Your task to perform on an android device: open app "Yahoo Mail" Image 0: 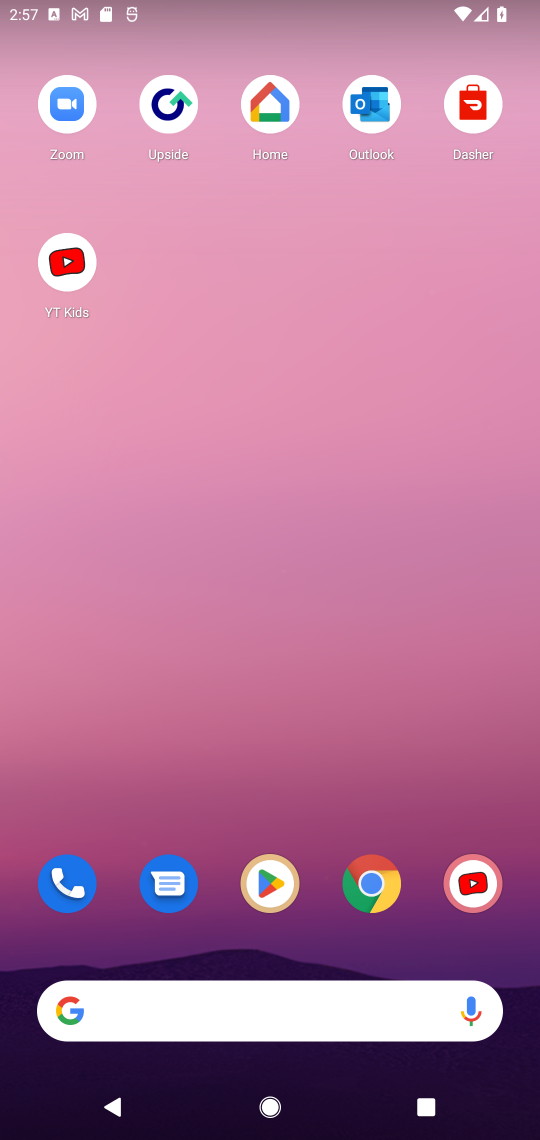
Step 0: drag from (256, 1014) to (235, 262)
Your task to perform on an android device: open app "Yahoo Mail" Image 1: 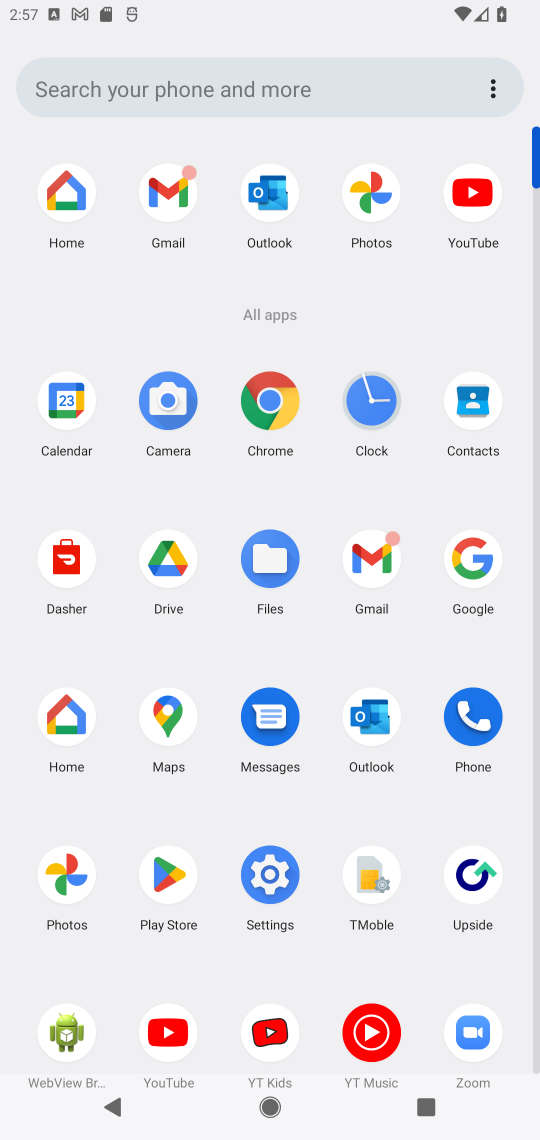
Step 1: click (153, 884)
Your task to perform on an android device: open app "Yahoo Mail" Image 2: 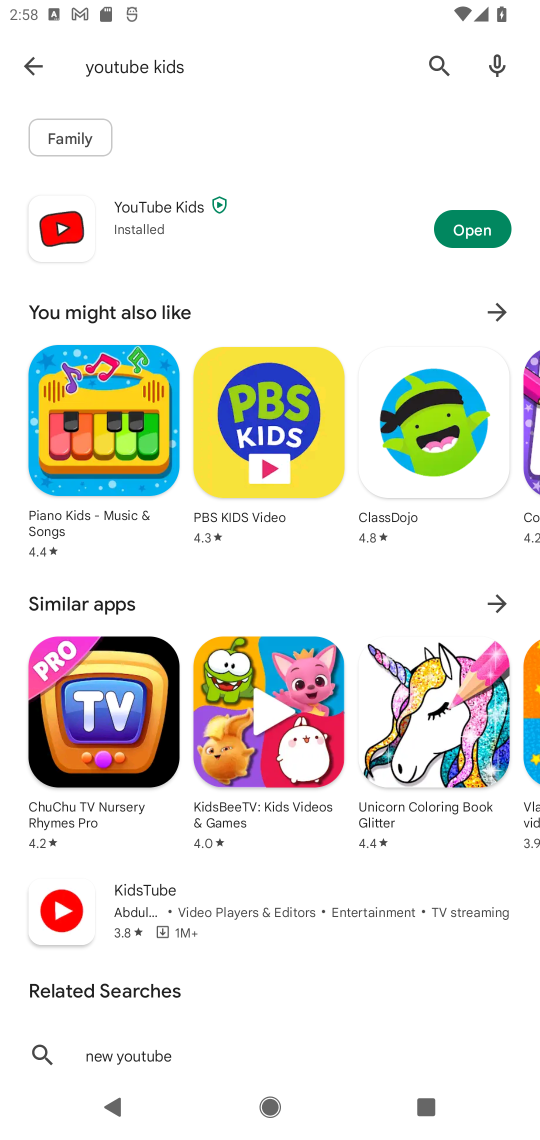
Step 2: click (447, 63)
Your task to perform on an android device: open app "Yahoo Mail" Image 3: 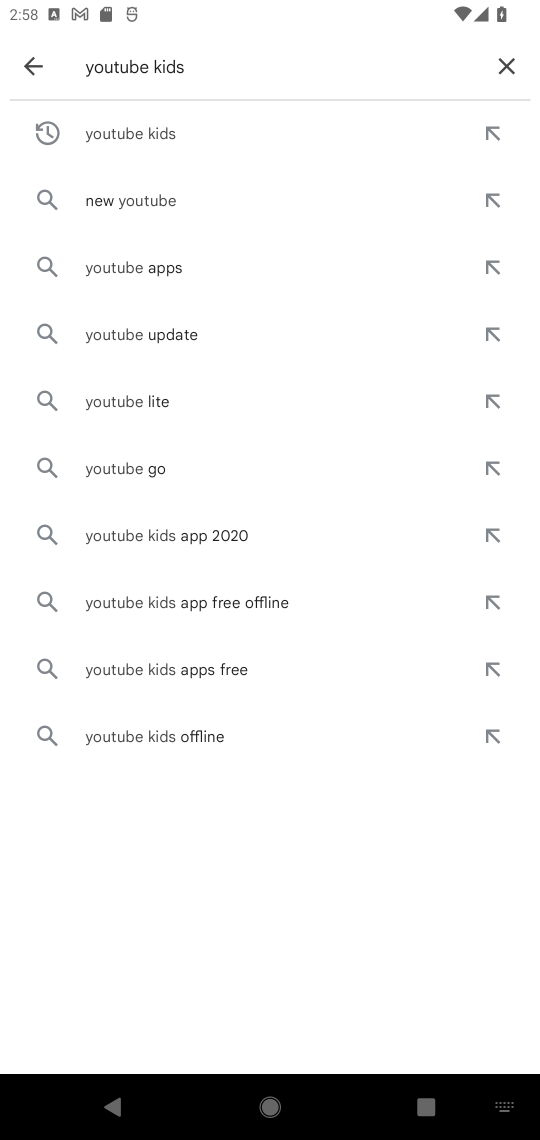
Step 3: click (516, 63)
Your task to perform on an android device: open app "Yahoo Mail" Image 4: 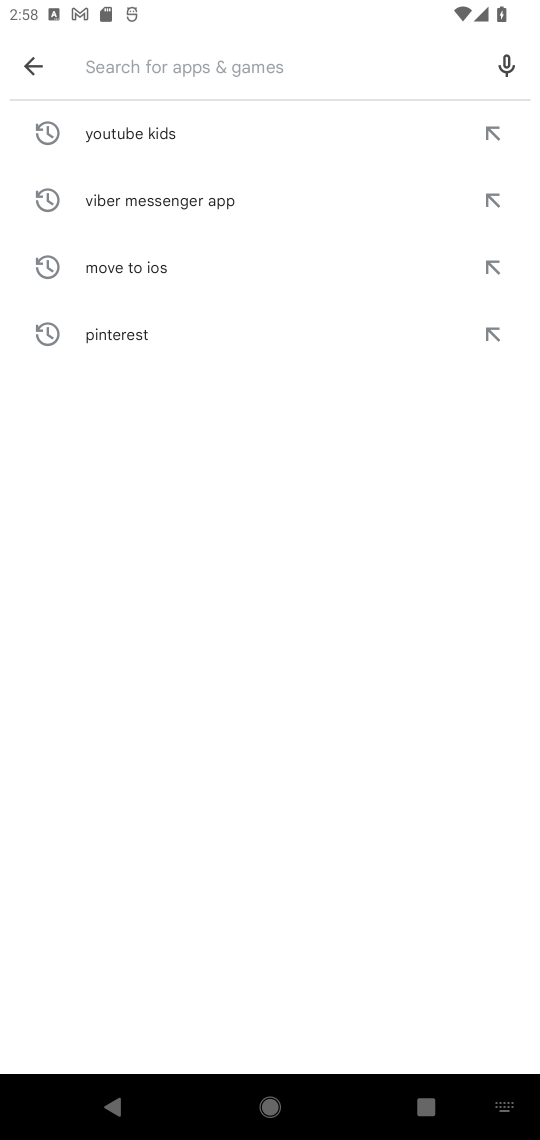
Step 4: type "Yahoo Mail"
Your task to perform on an android device: open app "Yahoo Mail" Image 5: 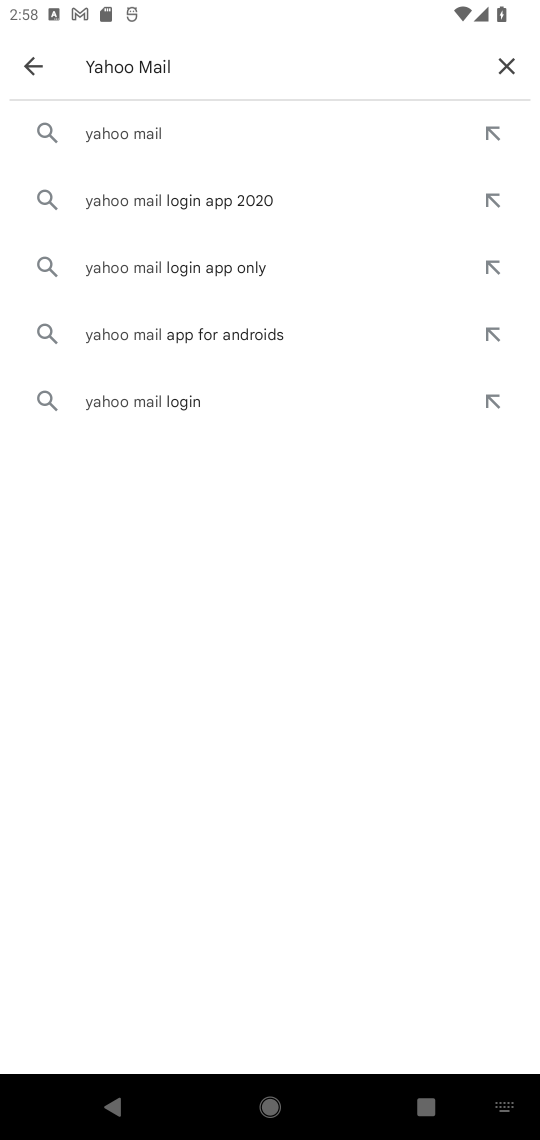
Step 5: click (155, 128)
Your task to perform on an android device: open app "Yahoo Mail" Image 6: 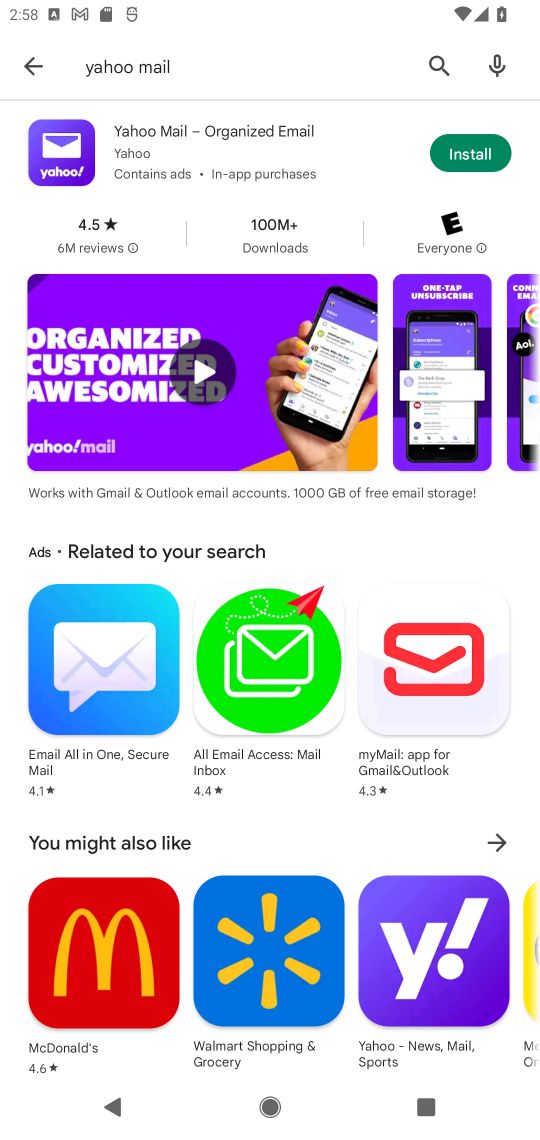
Step 6: click (497, 154)
Your task to perform on an android device: open app "Yahoo Mail" Image 7: 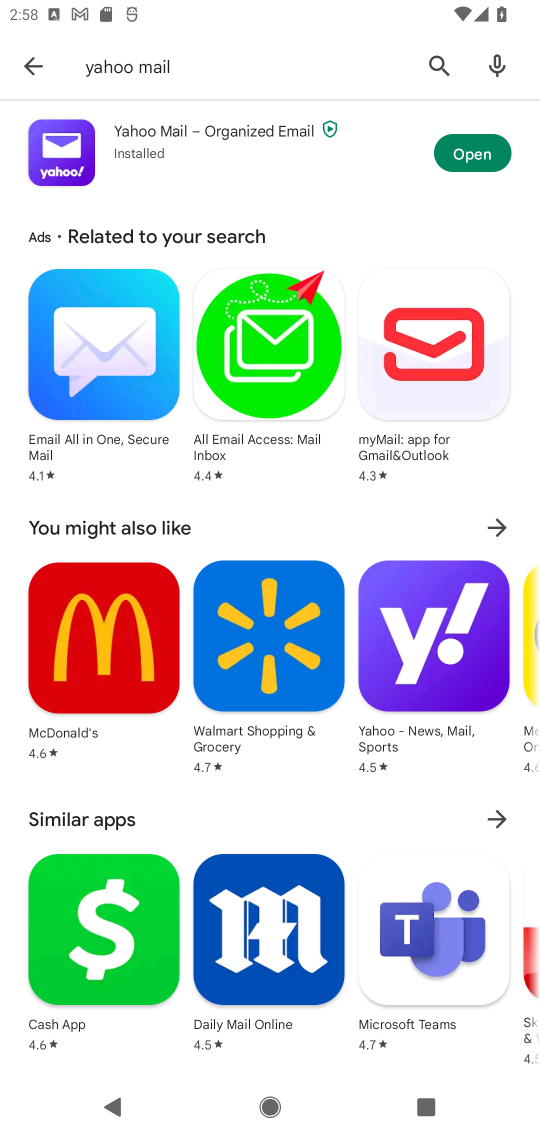
Step 7: click (461, 157)
Your task to perform on an android device: open app "Yahoo Mail" Image 8: 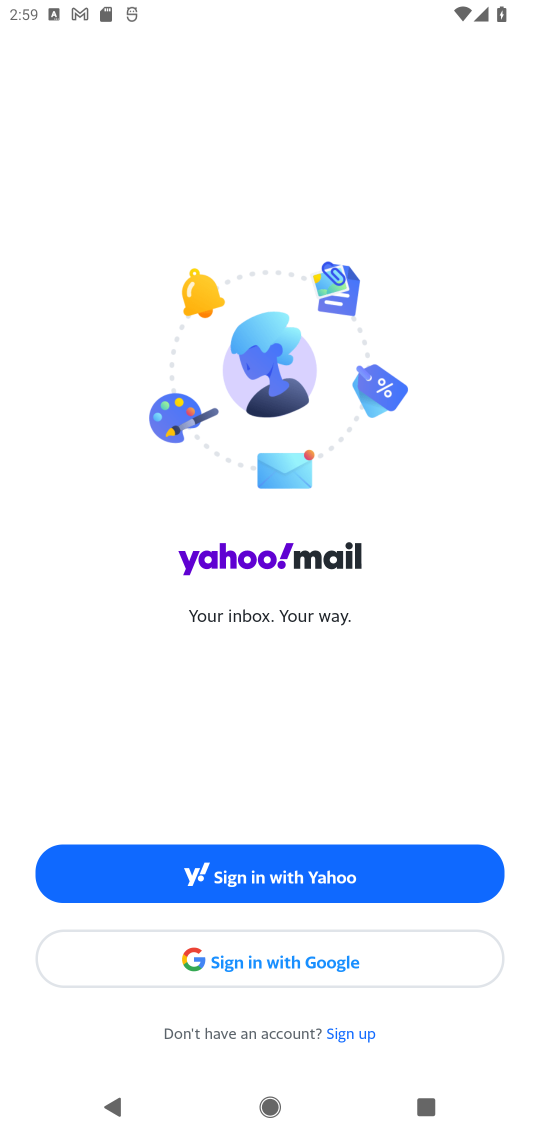
Step 8: task complete